Your task to perform on an android device: turn off sleep mode Image 0: 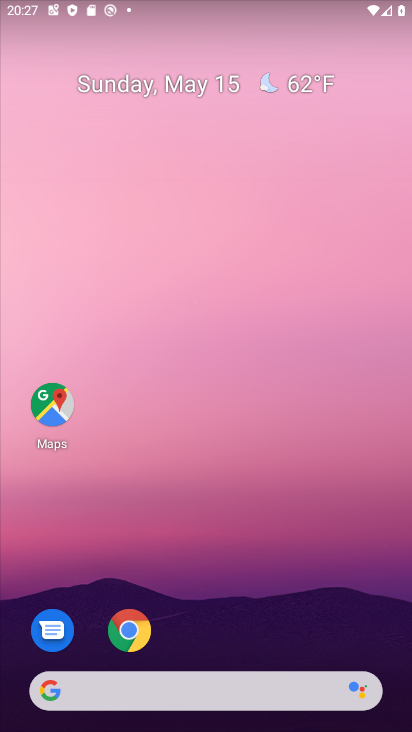
Step 0: drag from (200, 627) to (327, 5)
Your task to perform on an android device: turn off sleep mode Image 1: 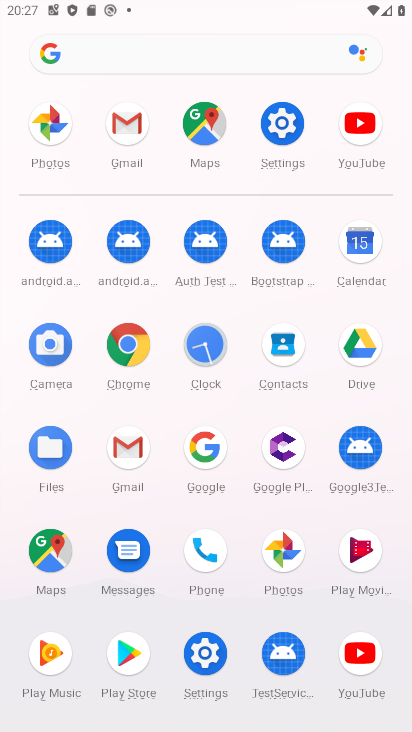
Step 1: click (288, 138)
Your task to perform on an android device: turn off sleep mode Image 2: 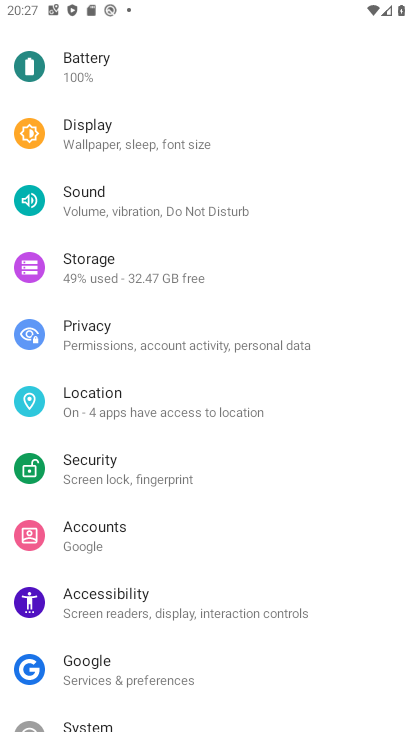
Step 2: drag from (195, 282) to (198, 507)
Your task to perform on an android device: turn off sleep mode Image 3: 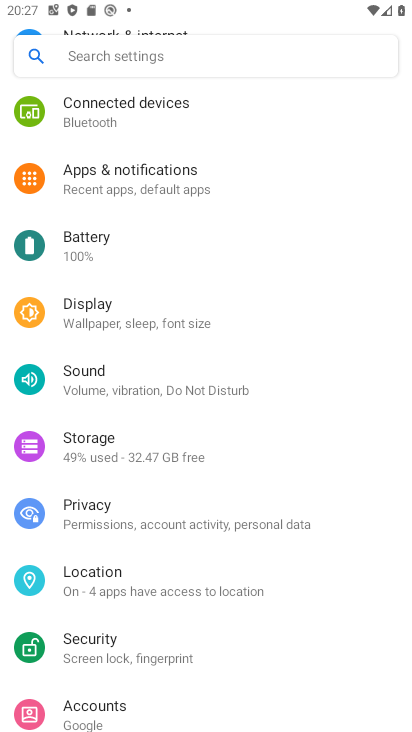
Step 3: click (196, 56)
Your task to perform on an android device: turn off sleep mode Image 4: 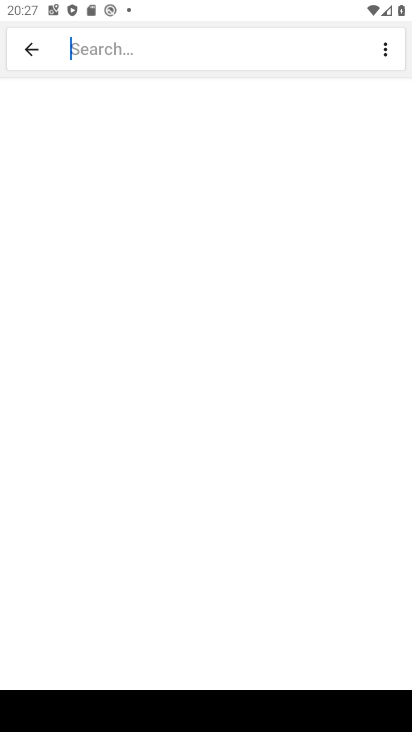
Step 4: type "sleep mode"
Your task to perform on an android device: turn off sleep mode Image 5: 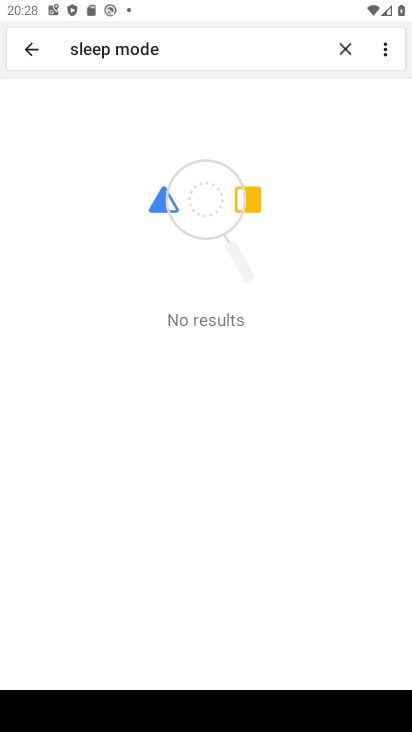
Step 5: task complete